Your task to perform on an android device: Clear all items from cart on costco. Image 0: 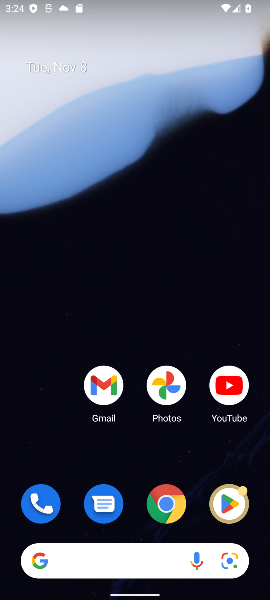
Step 0: drag from (110, 370) to (91, 88)
Your task to perform on an android device: Clear all items from cart on costco. Image 1: 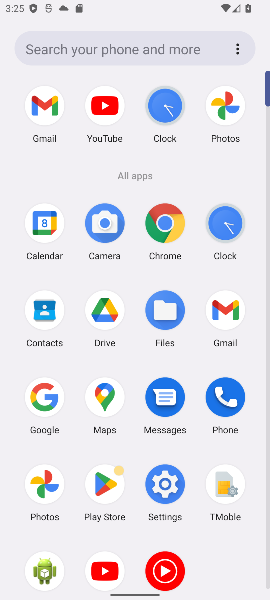
Step 1: click (167, 226)
Your task to perform on an android device: Clear all items from cart on costco. Image 2: 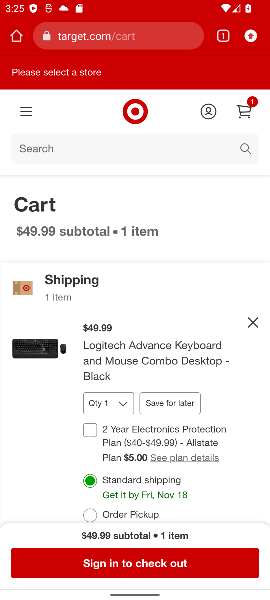
Step 2: click (119, 30)
Your task to perform on an android device: Clear all items from cart on costco. Image 3: 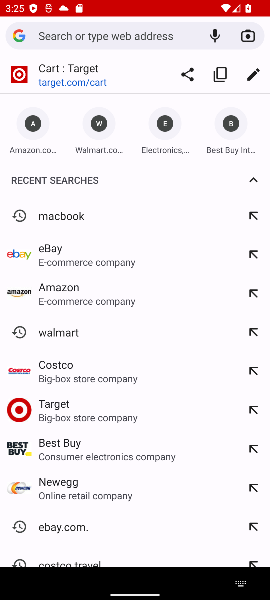
Step 3: type "costco"
Your task to perform on an android device: Clear all items from cart on costco. Image 4: 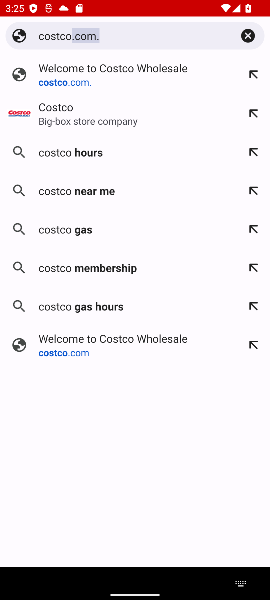
Step 4: press enter
Your task to perform on an android device: Clear all items from cart on costco. Image 5: 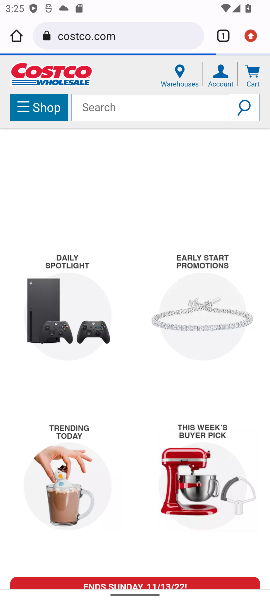
Step 5: click (119, 98)
Your task to perform on an android device: Clear all items from cart on costco. Image 6: 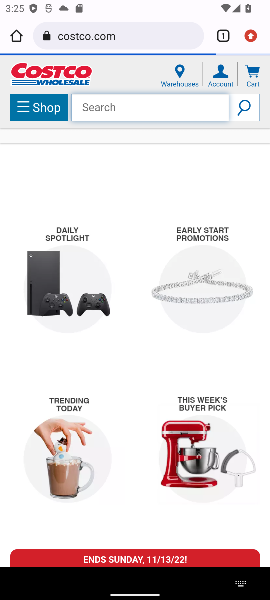
Step 6: click (254, 67)
Your task to perform on an android device: Clear all items from cart on costco. Image 7: 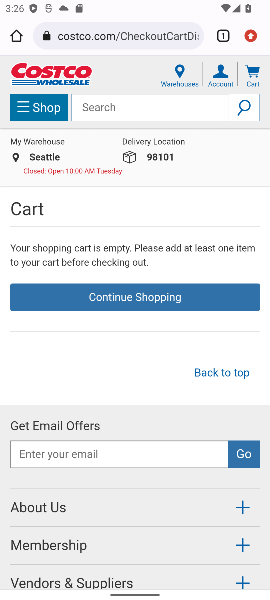
Step 7: task complete